Your task to perform on an android device: Go to location settings Image 0: 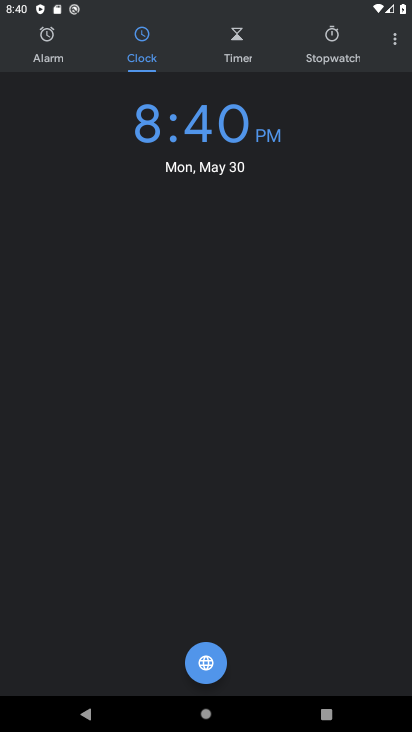
Step 0: press home button
Your task to perform on an android device: Go to location settings Image 1: 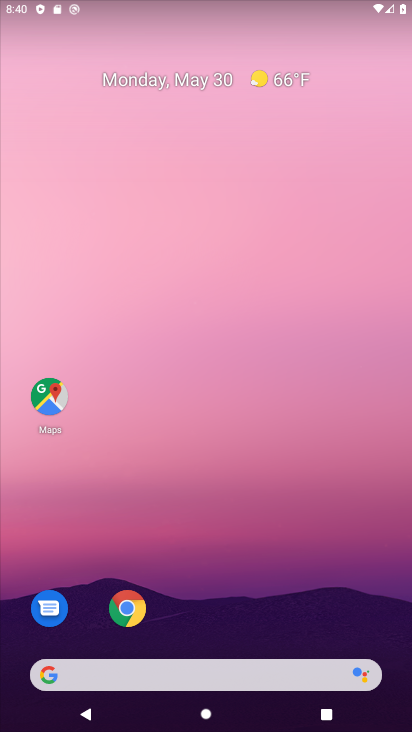
Step 1: drag from (230, 715) to (235, 33)
Your task to perform on an android device: Go to location settings Image 2: 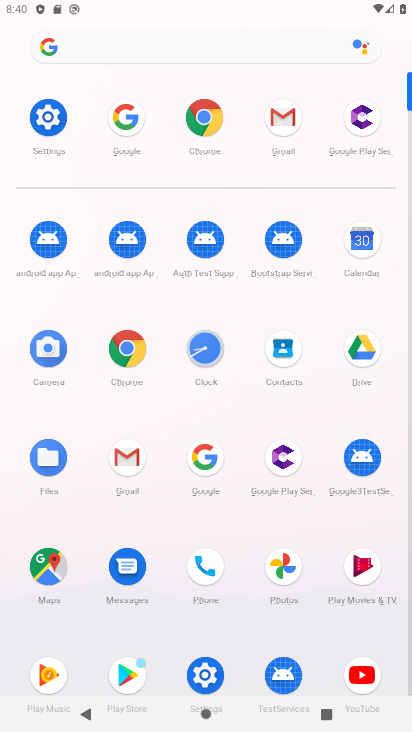
Step 2: click (48, 120)
Your task to perform on an android device: Go to location settings Image 3: 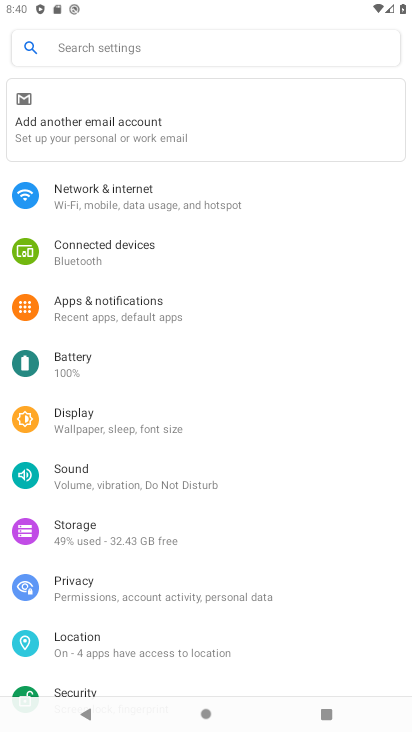
Step 3: click (90, 640)
Your task to perform on an android device: Go to location settings Image 4: 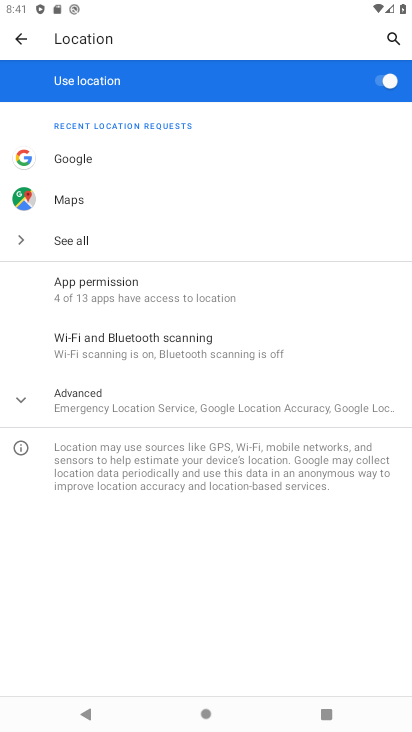
Step 4: task complete